Your task to perform on an android device: turn notification dots on Image 0: 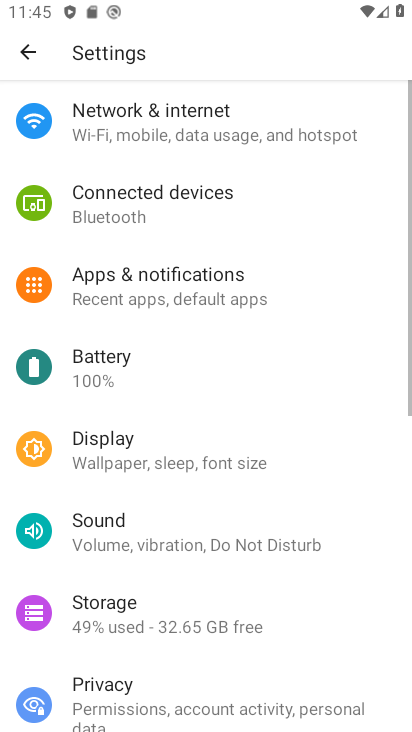
Step 0: click (198, 279)
Your task to perform on an android device: turn notification dots on Image 1: 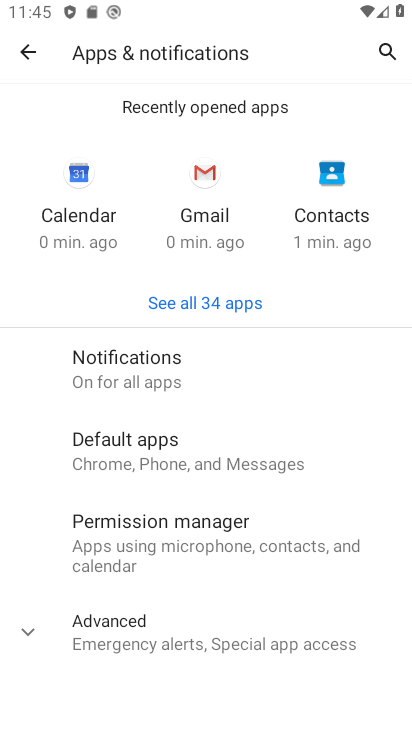
Step 1: click (204, 382)
Your task to perform on an android device: turn notification dots on Image 2: 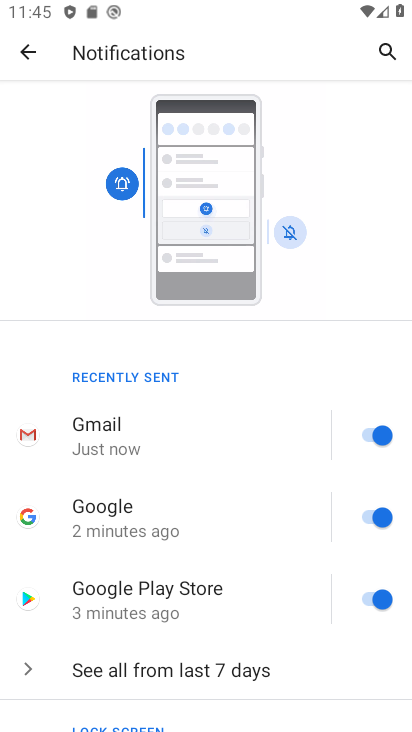
Step 2: drag from (202, 623) to (320, 231)
Your task to perform on an android device: turn notification dots on Image 3: 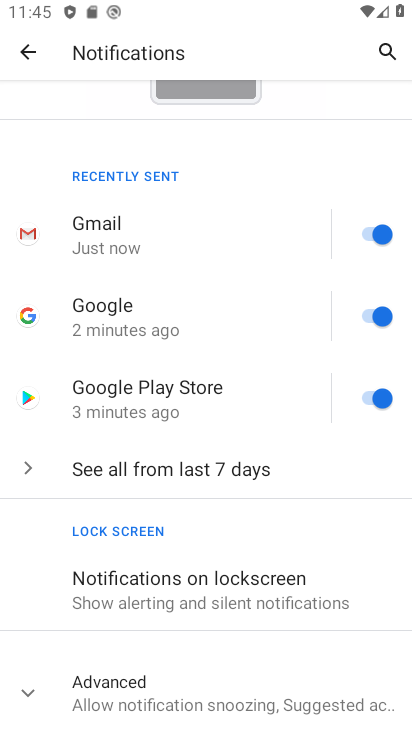
Step 3: click (181, 694)
Your task to perform on an android device: turn notification dots on Image 4: 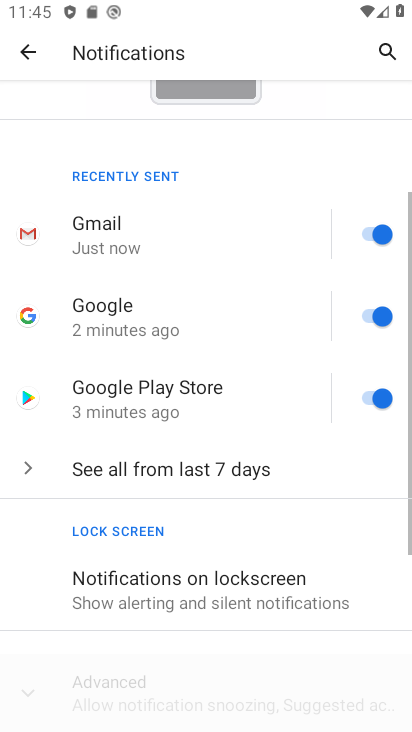
Step 4: task complete